Your task to perform on an android device: Is it going to rain today? Image 0: 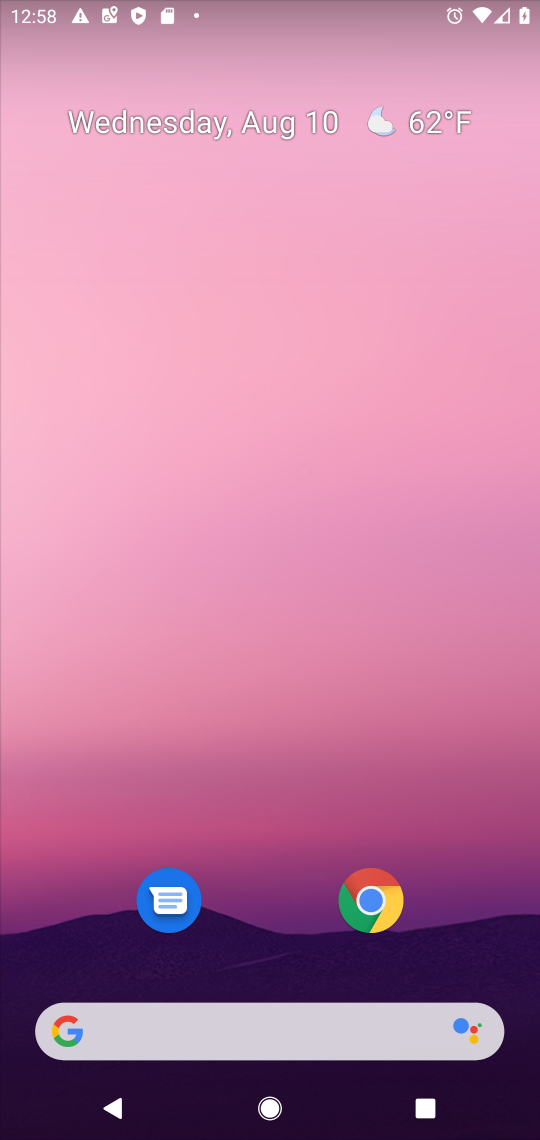
Step 0: click (238, 1033)
Your task to perform on an android device: Is it going to rain today? Image 1: 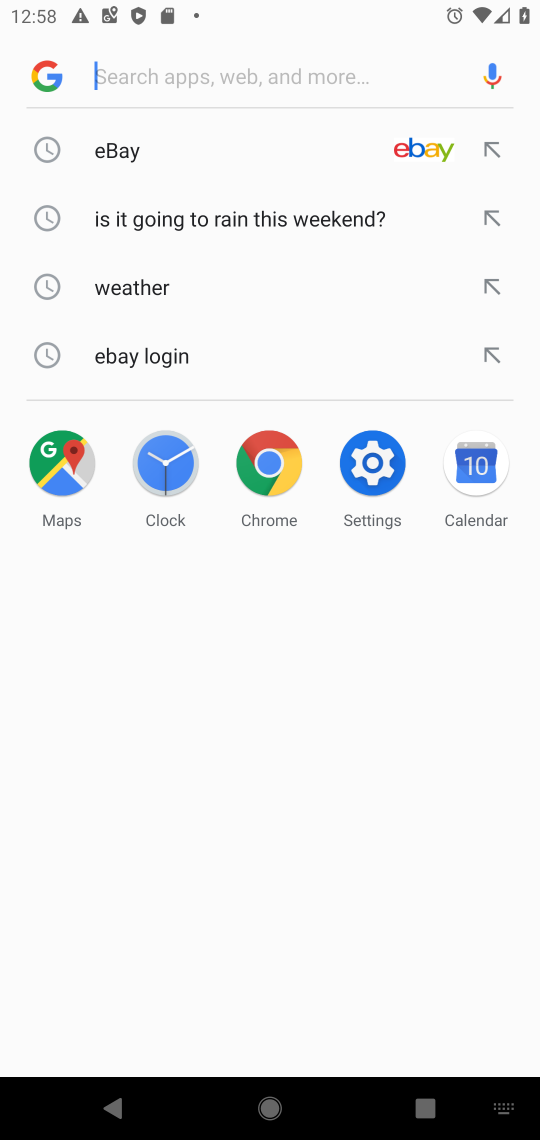
Step 1: click (149, 285)
Your task to perform on an android device: Is it going to rain today? Image 2: 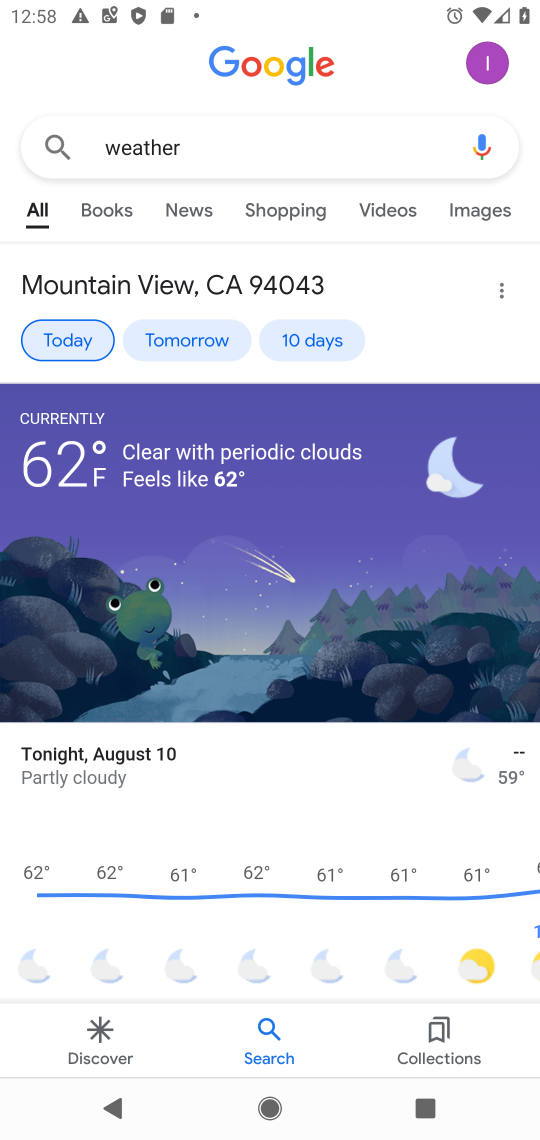
Step 2: click (74, 329)
Your task to perform on an android device: Is it going to rain today? Image 3: 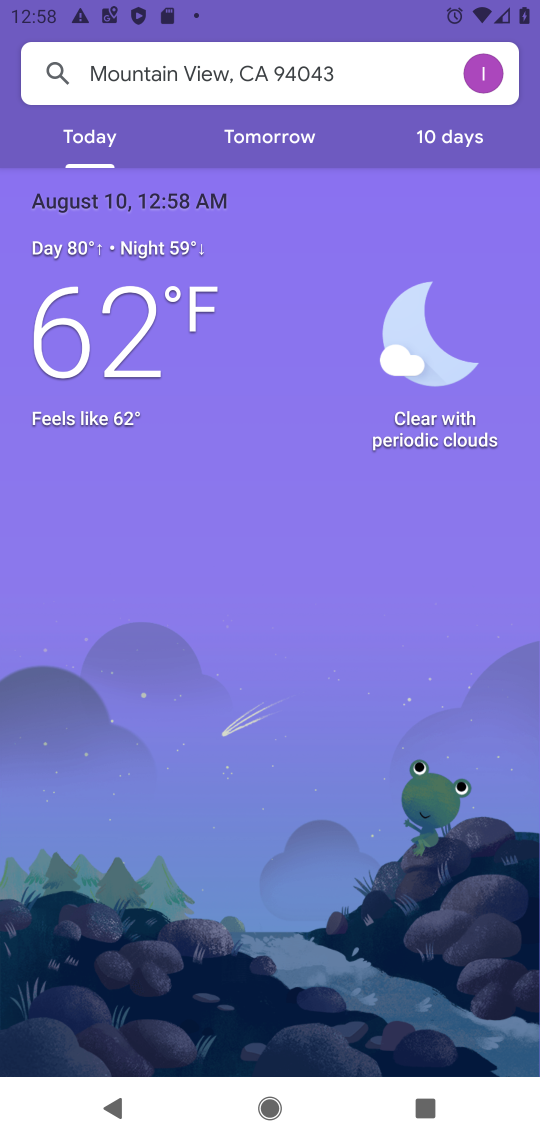
Step 3: task complete